Your task to perform on an android device: Check the weather Image 0: 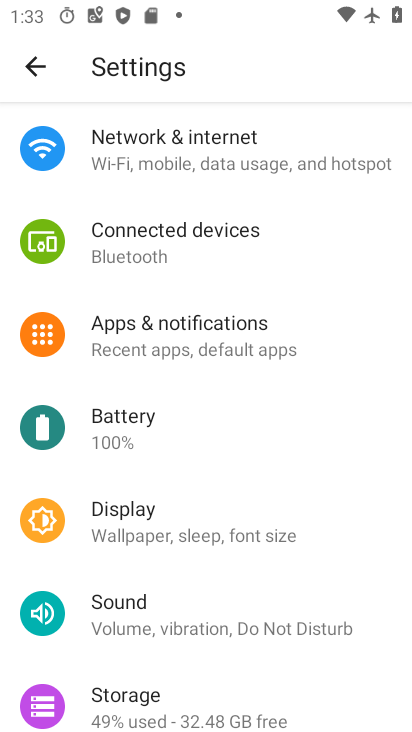
Step 0: press home button
Your task to perform on an android device: Check the weather Image 1: 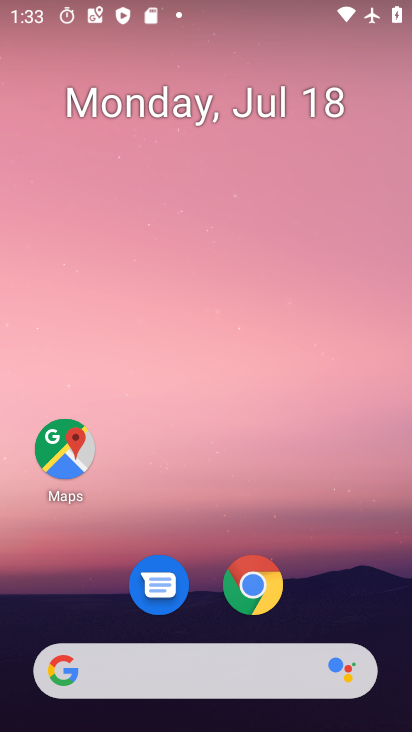
Step 1: click (179, 677)
Your task to perform on an android device: Check the weather Image 2: 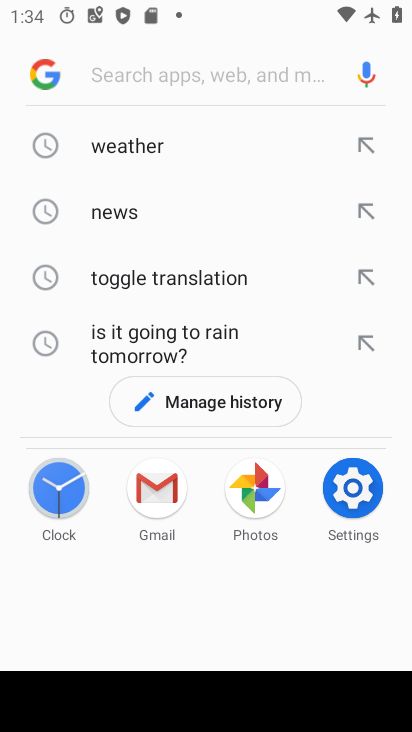
Step 2: click (128, 151)
Your task to perform on an android device: Check the weather Image 3: 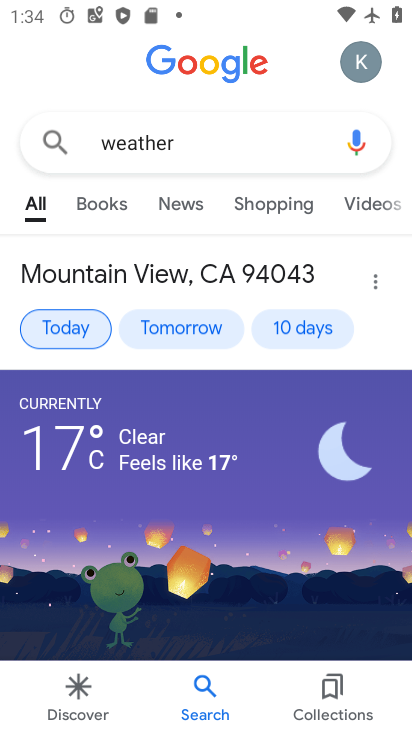
Step 3: task complete